Your task to perform on an android device: What is the recent news? Image 0: 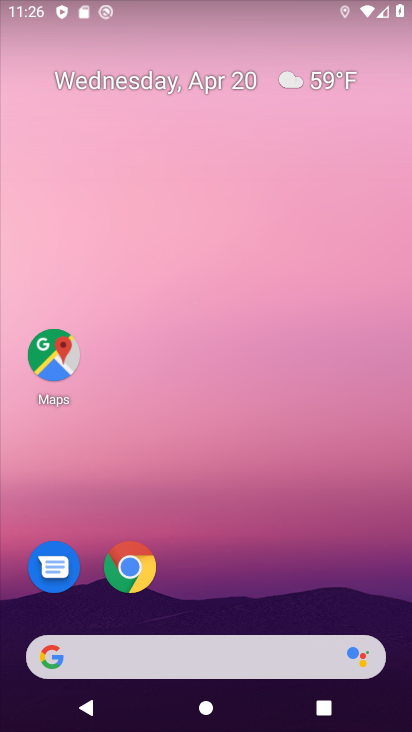
Step 0: drag from (260, 566) to (175, 7)
Your task to perform on an android device: What is the recent news? Image 1: 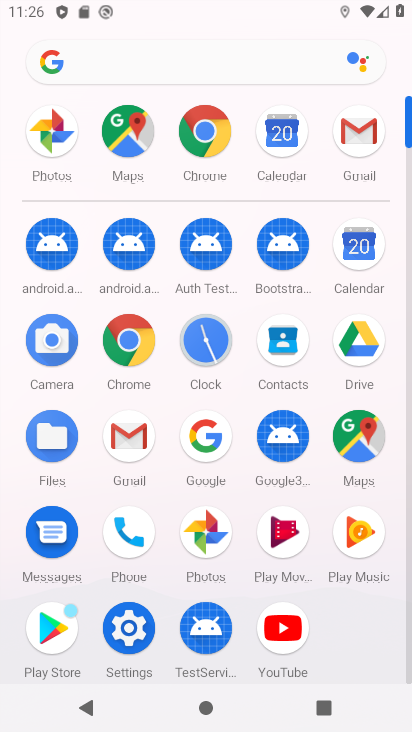
Step 1: click (83, 60)
Your task to perform on an android device: What is the recent news? Image 2: 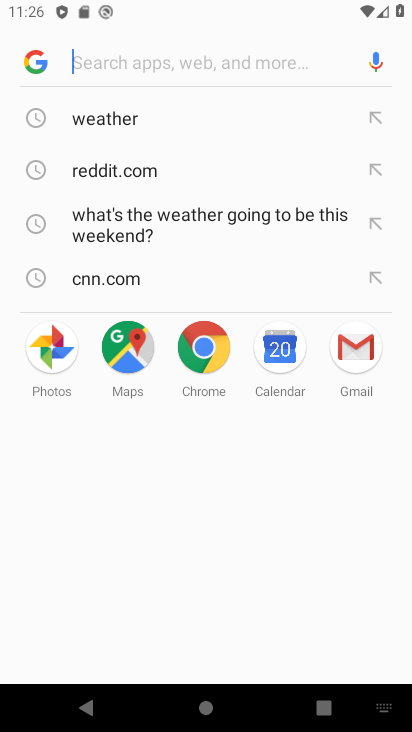
Step 2: type "what is the recent news"
Your task to perform on an android device: What is the recent news? Image 3: 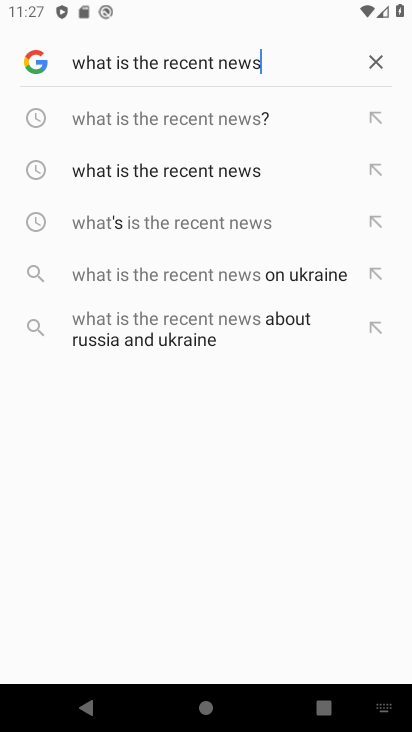
Step 3: click (89, 111)
Your task to perform on an android device: What is the recent news? Image 4: 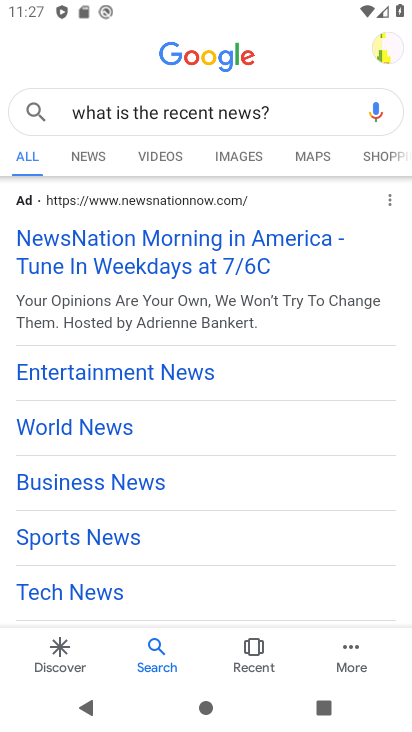
Step 4: click (68, 155)
Your task to perform on an android device: What is the recent news? Image 5: 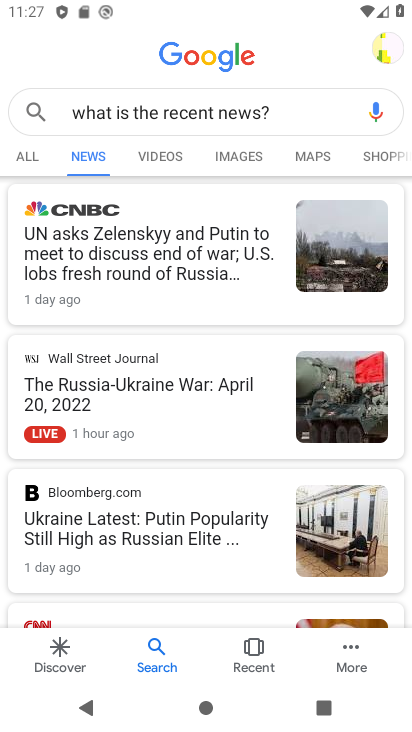
Step 5: task complete